Your task to perform on an android device: change notification settings in the gmail app Image 0: 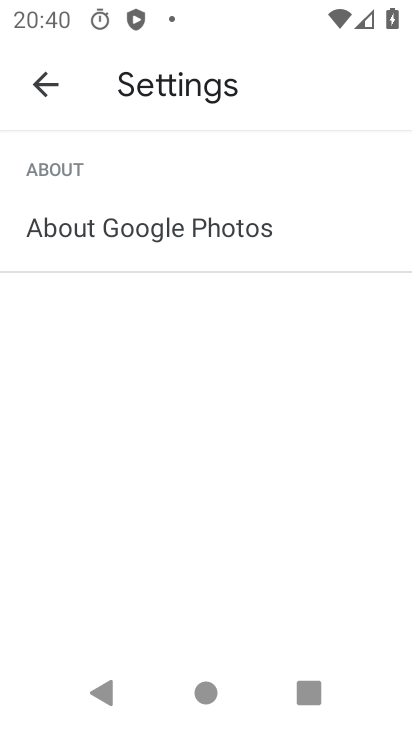
Step 0: press back button
Your task to perform on an android device: change notification settings in the gmail app Image 1: 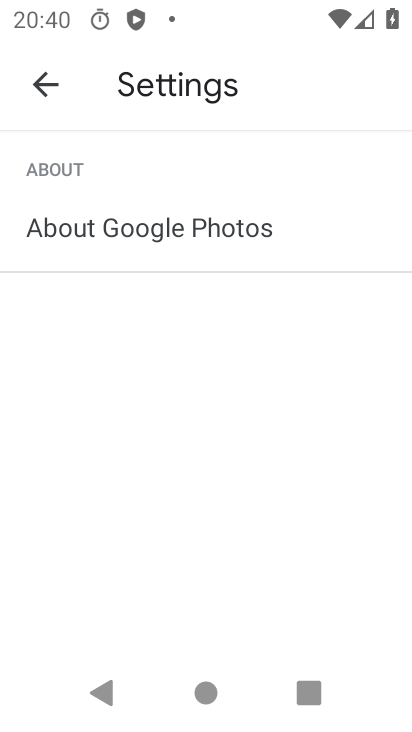
Step 1: press back button
Your task to perform on an android device: change notification settings in the gmail app Image 2: 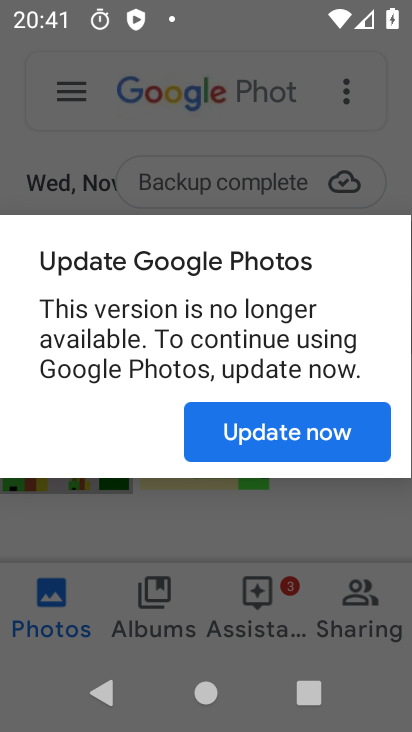
Step 2: press back button
Your task to perform on an android device: change notification settings in the gmail app Image 3: 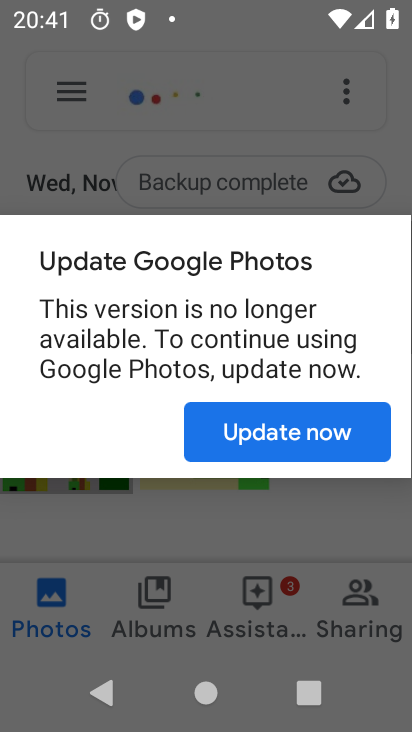
Step 3: press back button
Your task to perform on an android device: change notification settings in the gmail app Image 4: 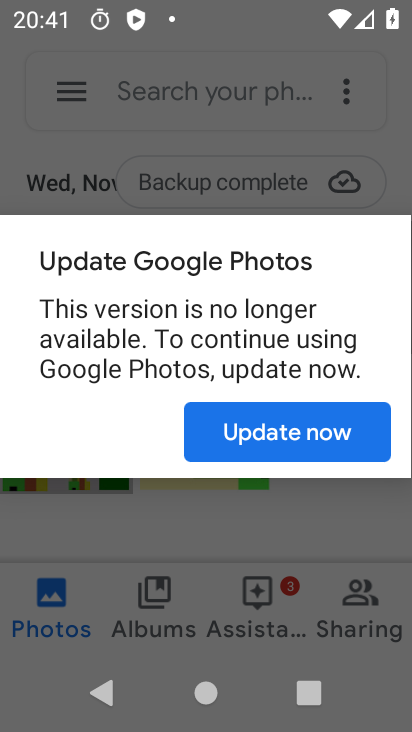
Step 4: press back button
Your task to perform on an android device: change notification settings in the gmail app Image 5: 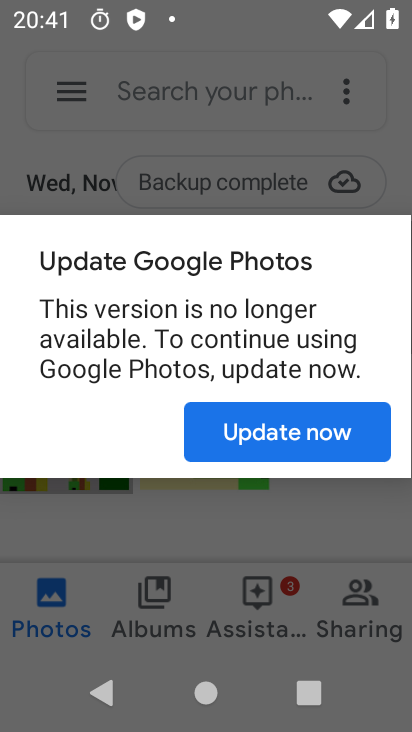
Step 5: press home button
Your task to perform on an android device: change notification settings in the gmail app Image 6: 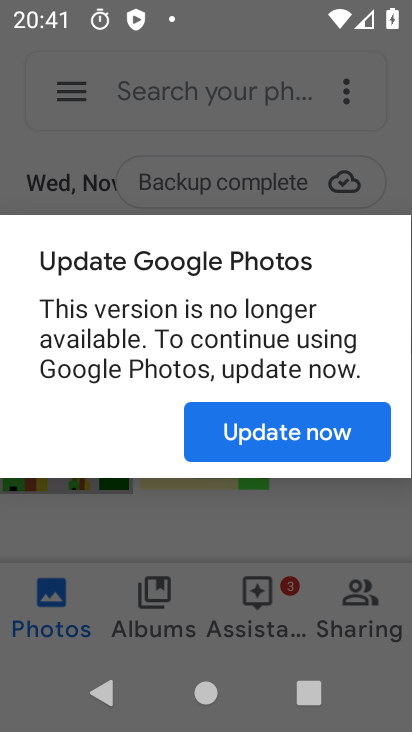
Step 6: press home button
Your task to perform on an android device: change notification settings in the gmail app Image 7: 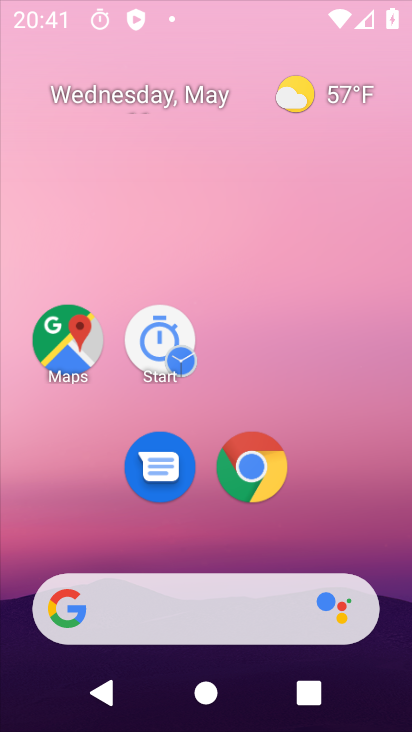
Step 7: press home button
Your task to perform on an android device: change notification settings in the gmail app Image 8: 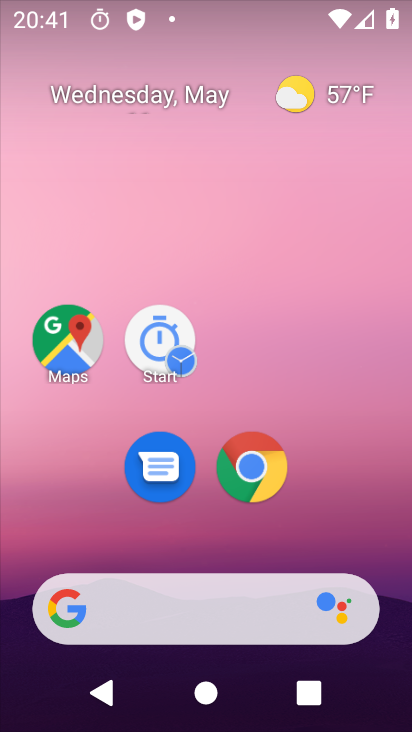
Step 8: drag from (248, 385) to (68, 1)
Your task to perform on an android device: change notification settings in the gmail app Image 9: 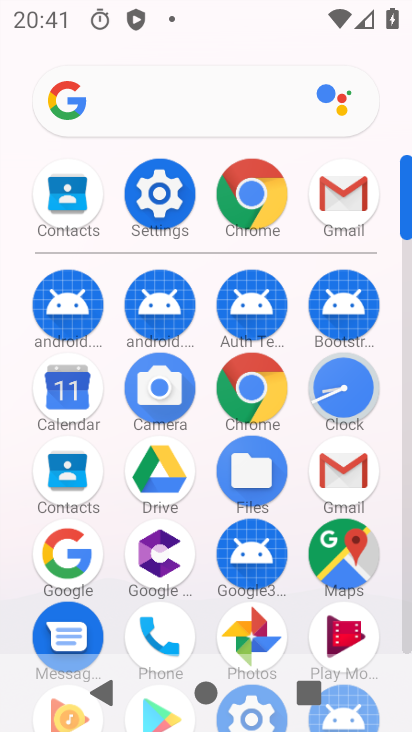
Step 9: click (336, 338)
Your task to perform on an android device: change notification settings in the gmail app Image 10: 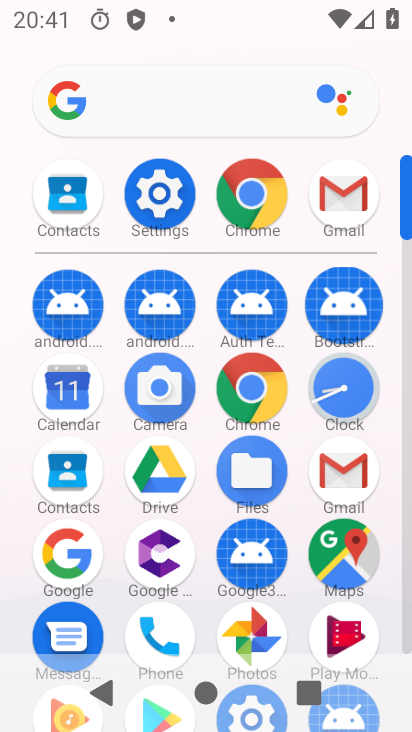
Step 10: click (348, 452)
Your task to perform on an android device: change notification settings in the gmail app Image 11: 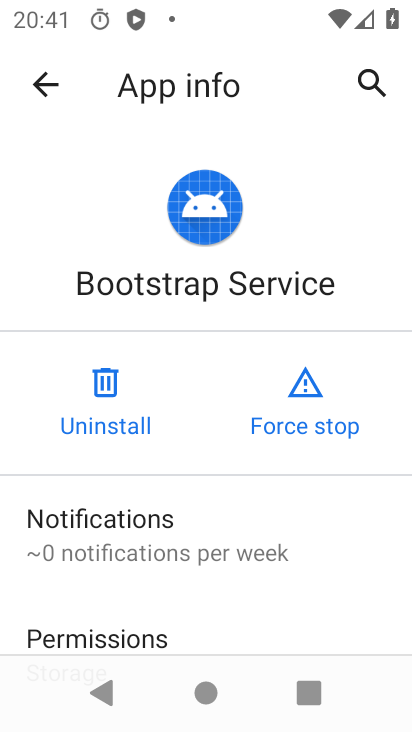
Step 11: click (47, 87)
Your task to perform on an android device: change notification settings in the gmail app Image 12: 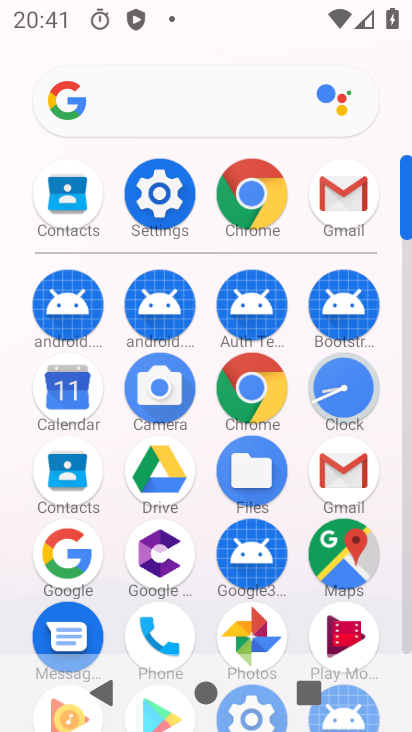
Step 12: click (345, 200)
Your task to perform on an android device: change notification settings in the gmail app Image 13: 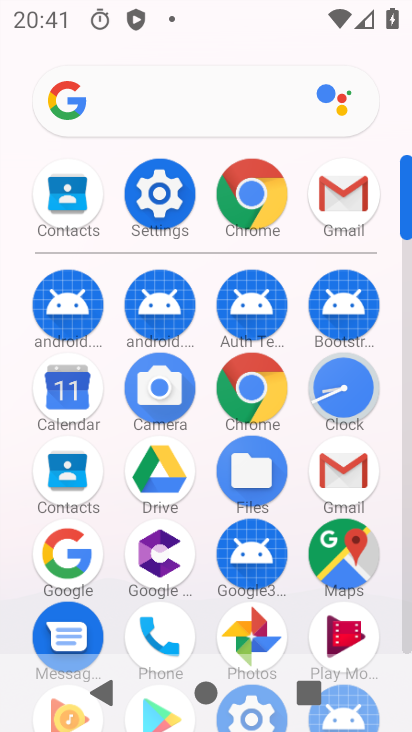
Step 13: click (345, 200)
Your task to perform on an android device: change notification settings in the gmail app Image 14: 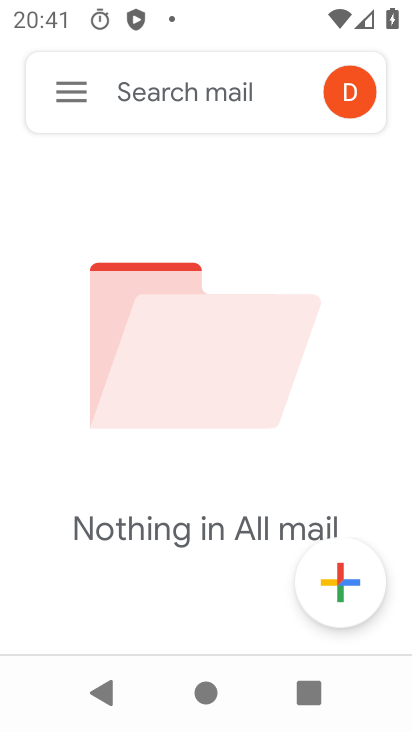
Step 14: click (346, 199)
Your task to perform on an android device: change notification settings in the gmail app Image 15: 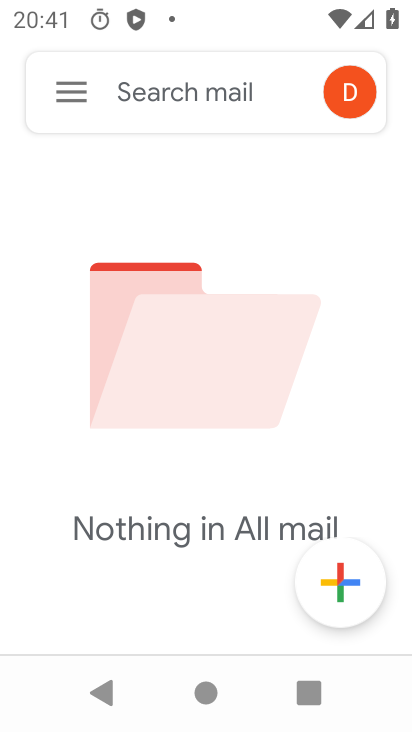
Step 15: click (79, 100)
Your task to perform on an android device: change notification settings in the gmail app Image 16: 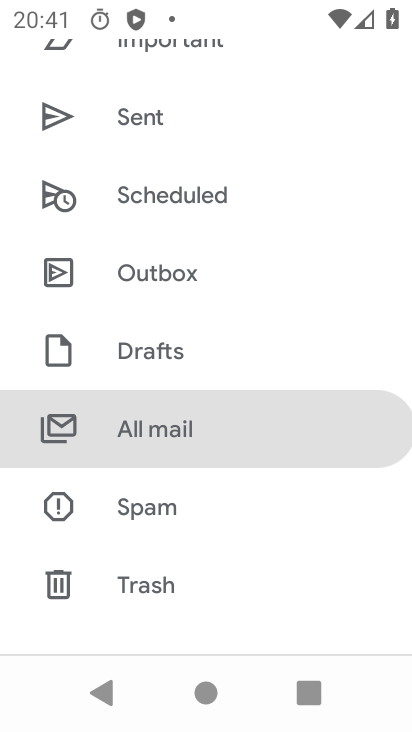
Step 16: click (77, 102)
Your task to perform on an android device: change notification settings in the gmail app Image 17: 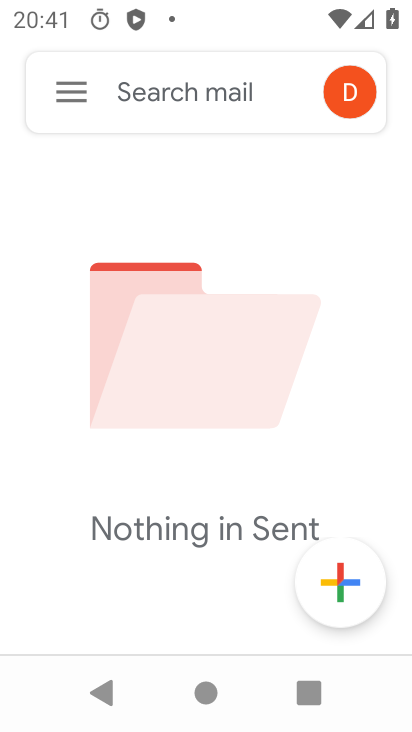
Step 17: click (79, 100)
Your task to perform on an android device: change notification settings in the gmail app Image 18: 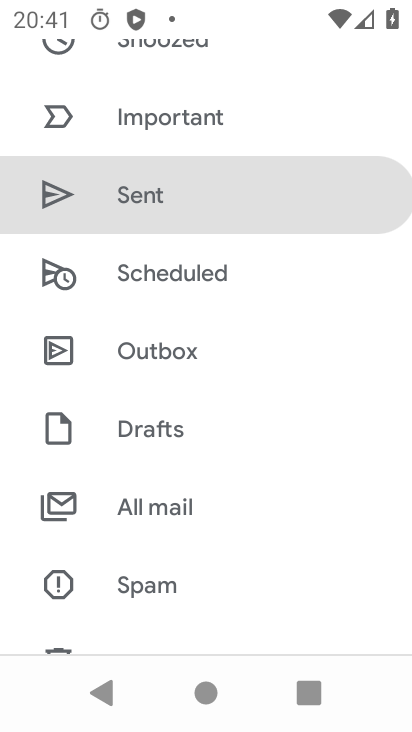
Step 18: click (64, 79)
Your task to perform on an android device: change notification settings in the gmail app Image 19: 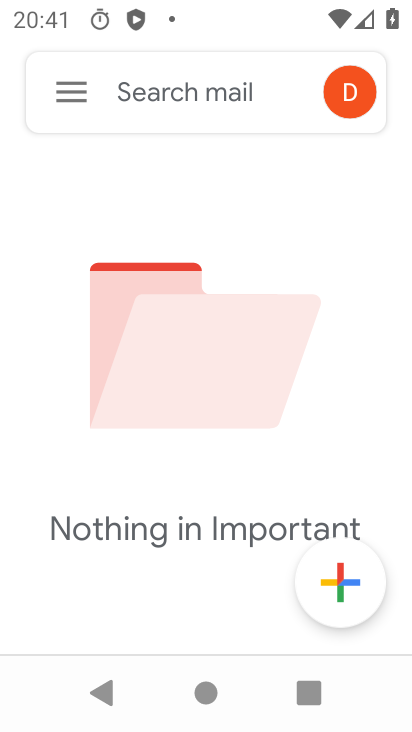
Step 19: click (70, 89)
Your task to perform on an android device: change notification settings in the gmail app Image 20: 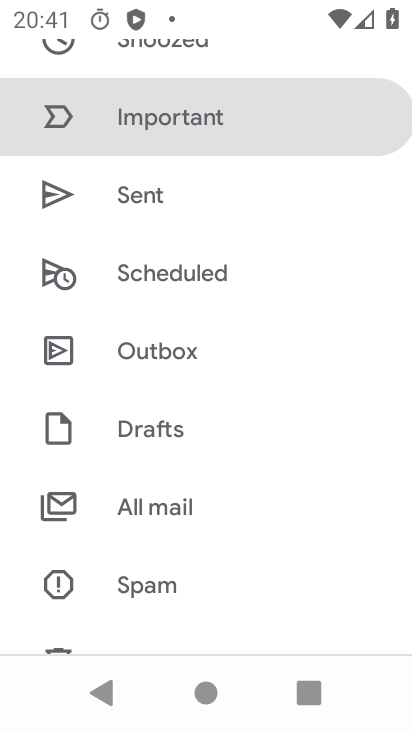
Step 20: drag from (165, 573) to (178, 123)
Your task to perform on an android device: change notification settings in the gmail app Image 21: 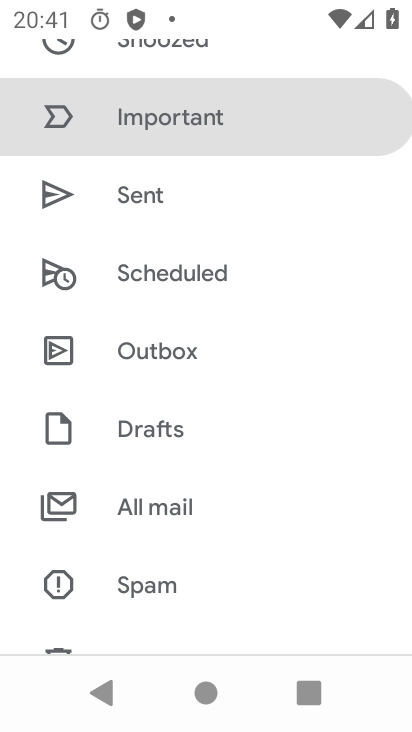
Step 21: drag from (268, 524) to (128, 129)
Your task to perform on an android device: change notification settings in the gmail app Image 22: 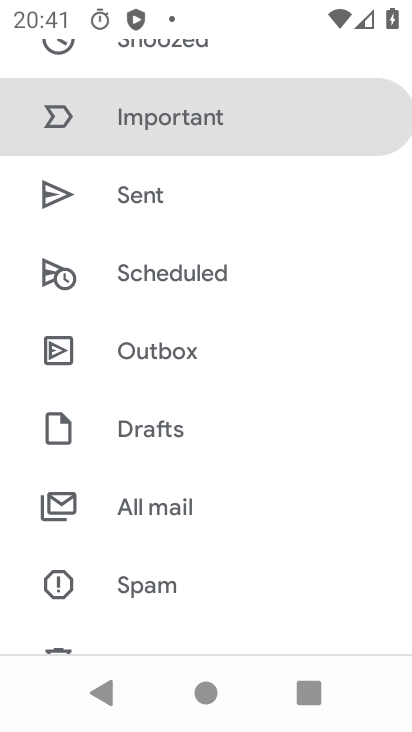
Step 22: drag from (209, 88) to (166, 114)
Your task to perform on an android device: change notification settings in the gmail app Image 23: 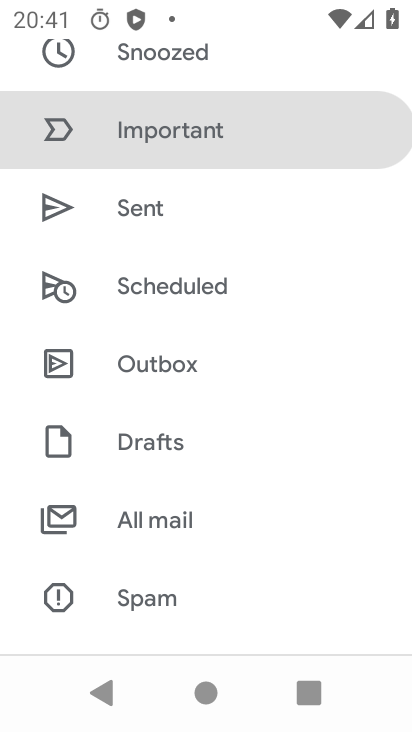
Step 23: click (249, 108)
Your task to perform on an android device: change notification settings in the gmail app Image 24: 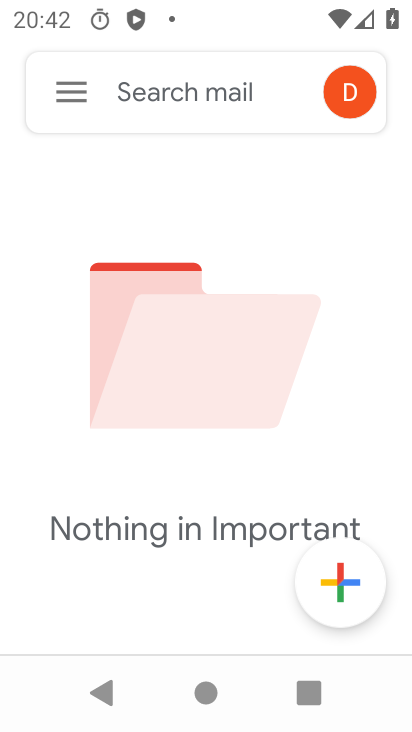
Step 24: drag from (182, 416) to (129, 3)
Your task to perform on an android device: change notification settings in the gmail app Image 25: 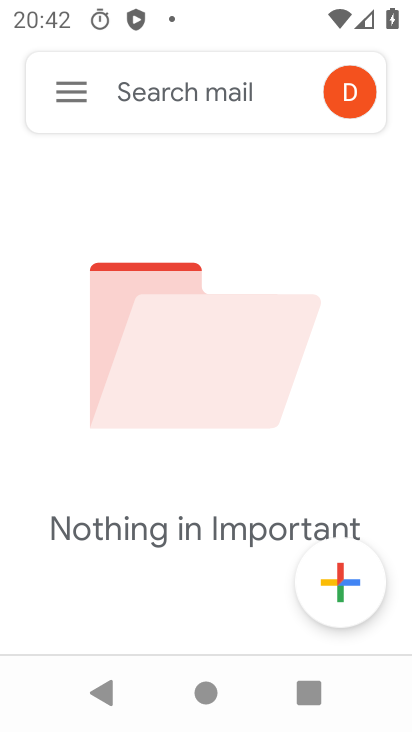
Step 25: click (119, 95)
Your task to perform on an android device: change notification settings in the gmail app Image 26: 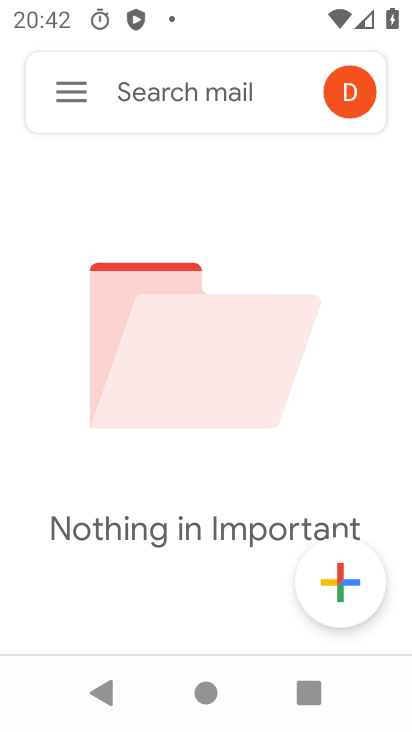
Step 26: drag from (173, 538) to (47, 25)
Your task to perform on an android device: change notification settings in the gmail app Image 27: 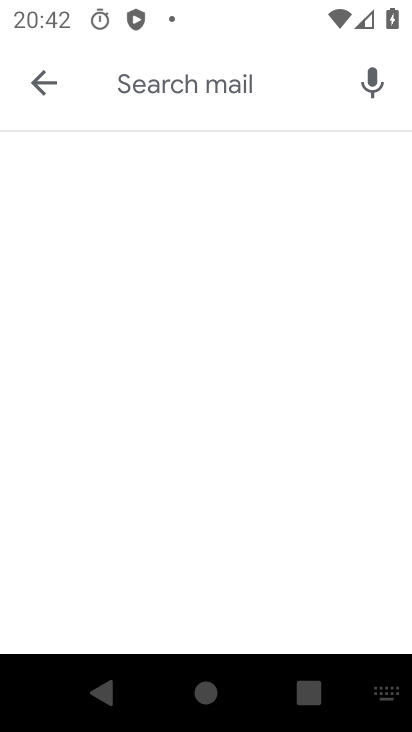
Step 27: drag from (138, 533) to (51, 167)
Your task to perform on an android device: change notification settings in the gmail app Image 28: 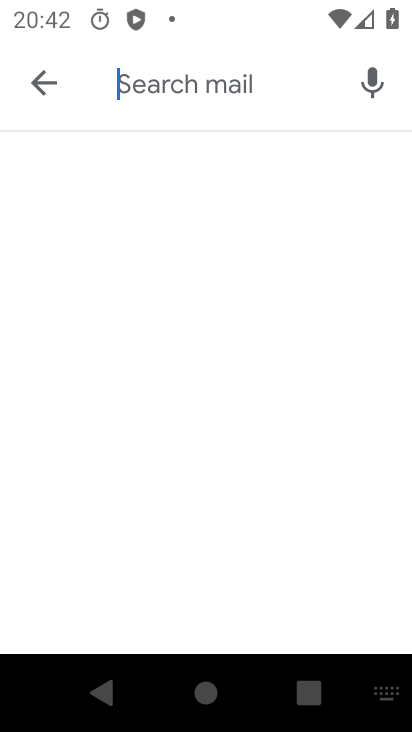
Step 28: drag from (141, 481) to (152, 77)
Your task to perform on an android device: change notification settings in the gmail app Image 29: 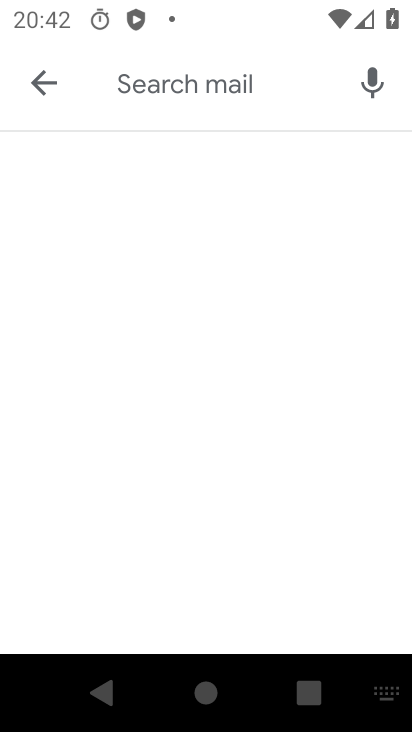
Step 29: drag from (239, 418) to (192, 0)
Your task to perform on an android device: change notification settings in the gmail app Image 30: 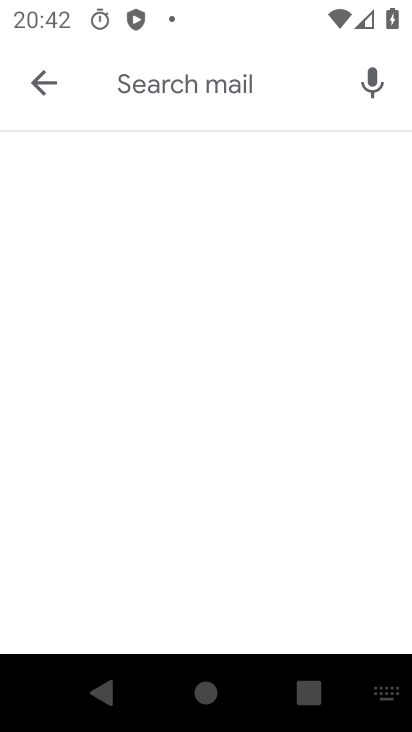
Step 30: click (57, 85)
Your task to perform on an android device: change notification settings in the gmail app Image 31: 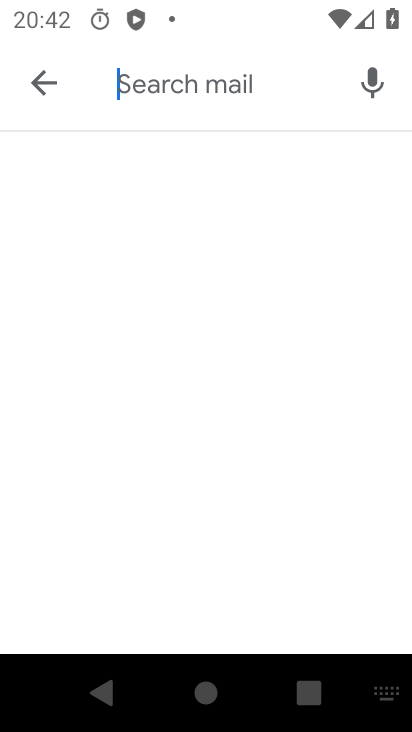
Step 31: click (65, 86)
Your task to perform on an android device: change notification settings in the gmail app Image 32: 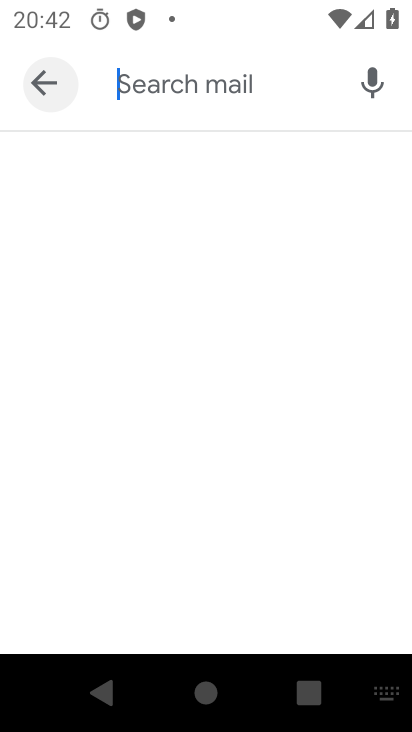
Step 32: click (66, 85)
Your task to perform on an android device: change notification settings in the gmail app Image 33: 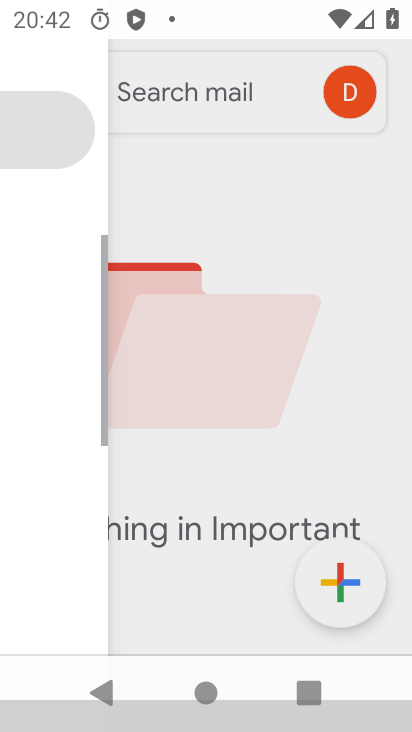
Step 33: click (60, 61)
Your task to perform on an android device: change notification settings in the gmail app Image 34: 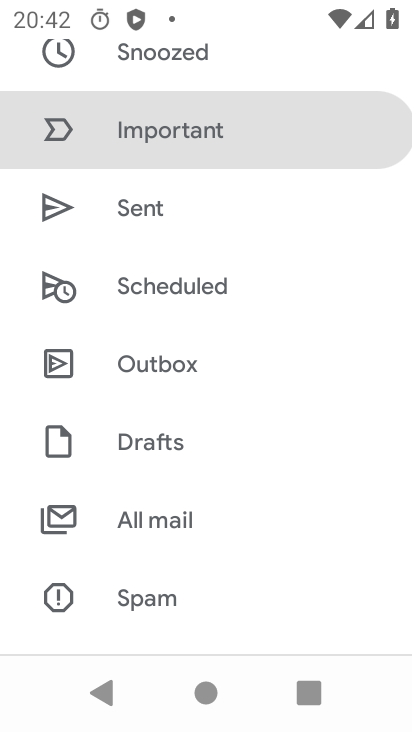
Step 34: click (42, 74)
Your task to perform on an android device: change notification settings in the gmail app Image 35: 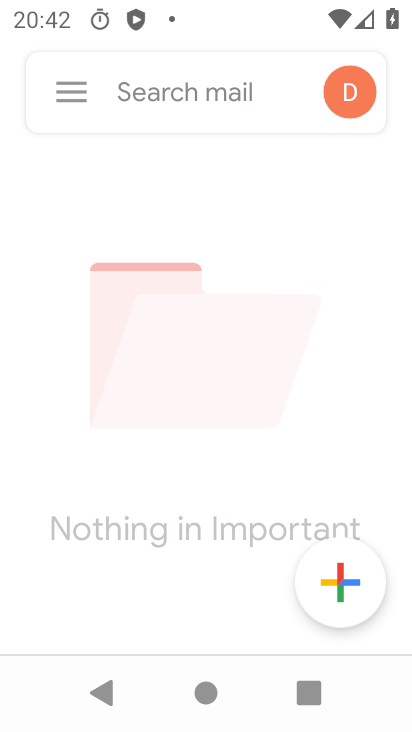
Step 35: drag from (159, 491) to (127, 19)
Your task to perform on an android device: change notification settings in the gmail app Image 36: 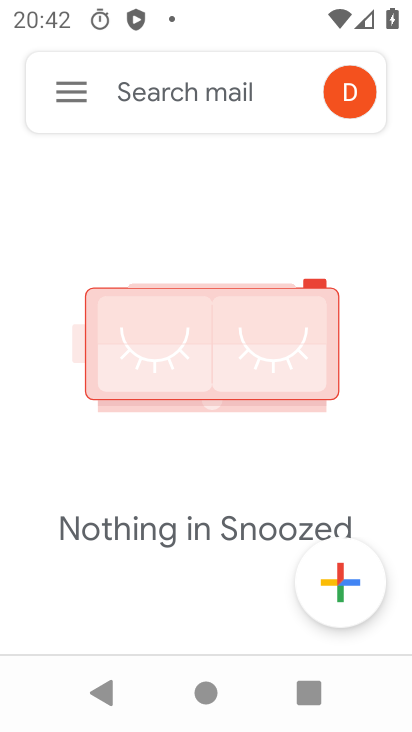
Step 36: click (49, 92)
Your task to perform on an android device: change notification settings in the gmail app Image 37: 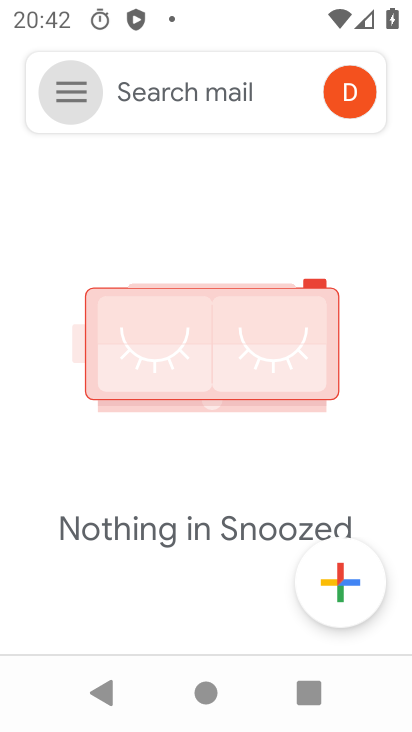
Step 37: click (53, 95)
Your task to perform on an android device: change notification settings in the gmail app Image 38: 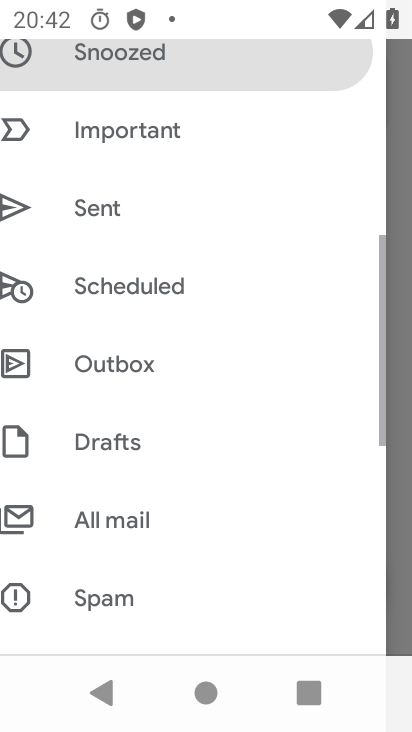
Step 38: click (53, 95)
Your task to perform on an android device: change notification settings in the gmail app Image 39: 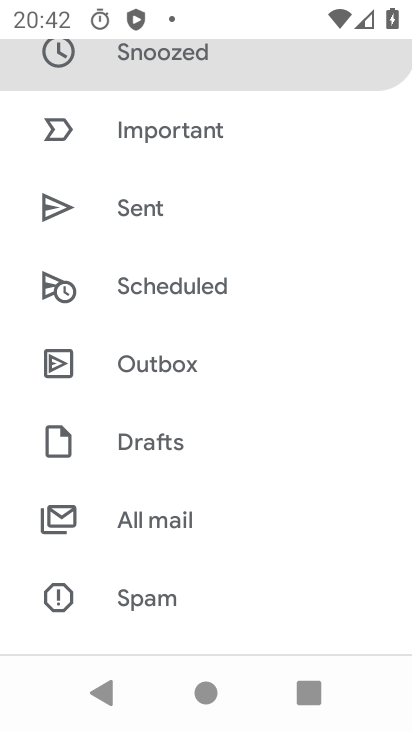
Step 39: drag from (200, 530) to (147, 239)
Your task to perform on an android device: change notification settings in the gmail app Image 40: 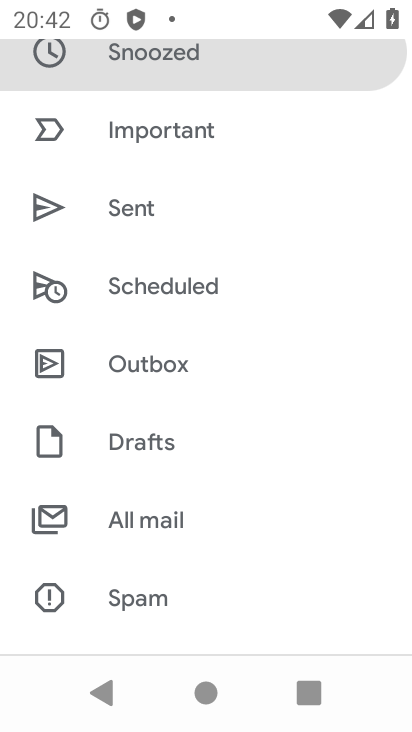
Step 40: drag from (152, 445) to (124, 120)
Your task to perform on an android device: change notification settings in the gmail app Image 41: 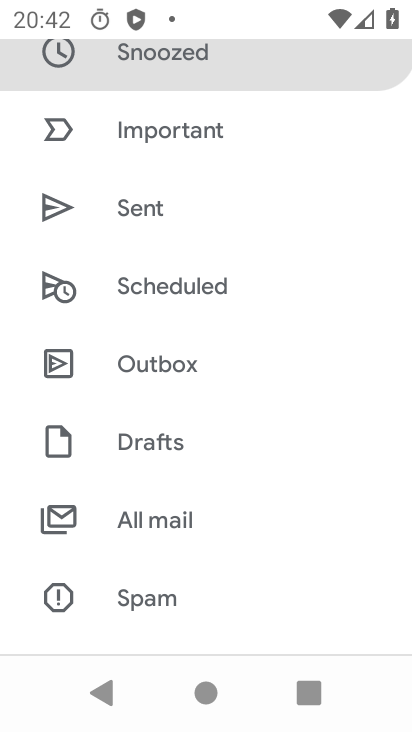
Step 41: drag from (149, 449) to (161, 83)
Your task to perform on an android device: change notification settings in the gmail app Image 42: 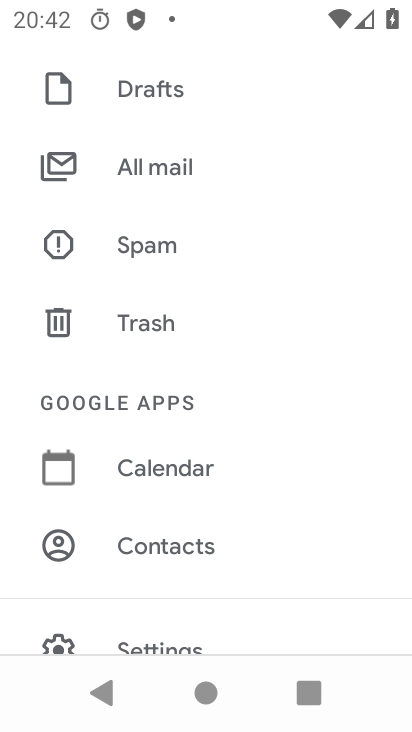
Step 42: drag from (189, 452) to (208, 28)
Your task to perform on an android device: change notification settings in the gmail app Image 43: 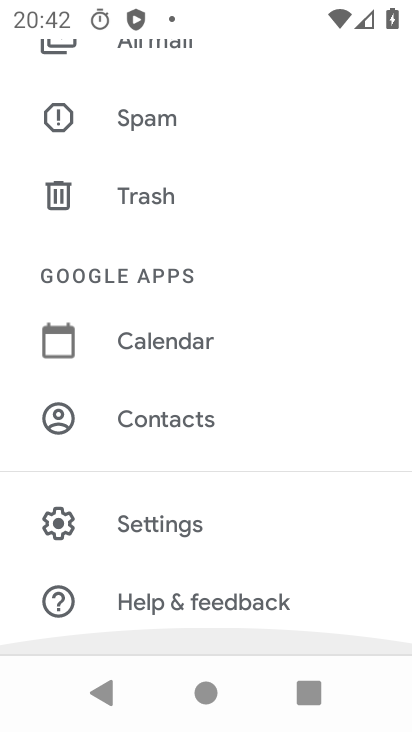
Step 43: drag from (245, 446) to (217, 112)
Your task to perform on an android device: change notification settings in the gmail app Image 44: 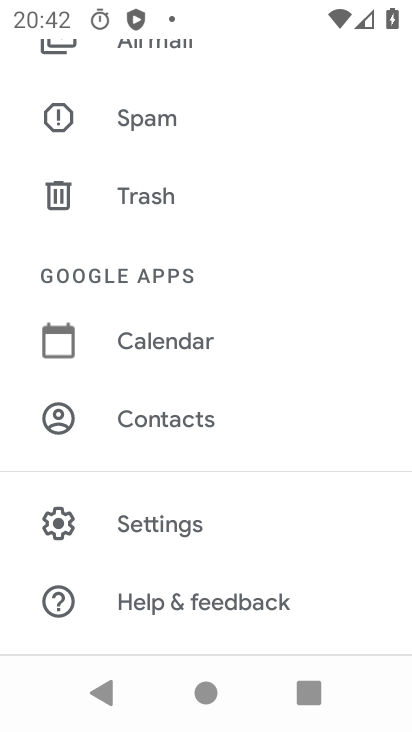
Step 44: drag from (229, 495) to (212, 37)
Your task to perform on an android device: change notification settings in the gmail app Image 45: 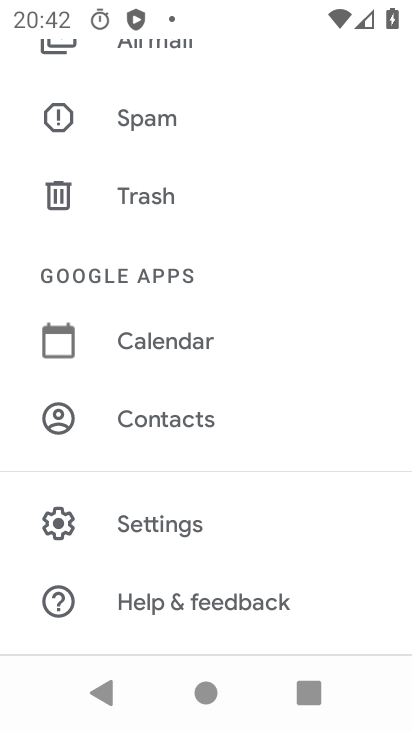
Step 45: click (168, 514)
Your task to perform on an android device: change notification settings in the gmail app Image 46: 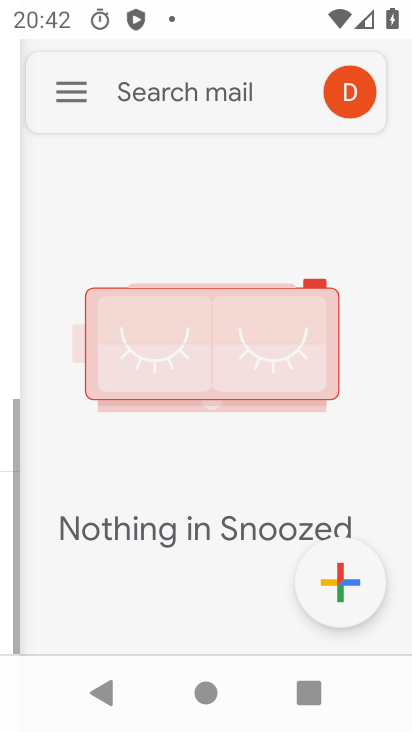
Step 46: click (159, 516)
Your task to perform on an android device: change notification settings in the gmail app Image 47: 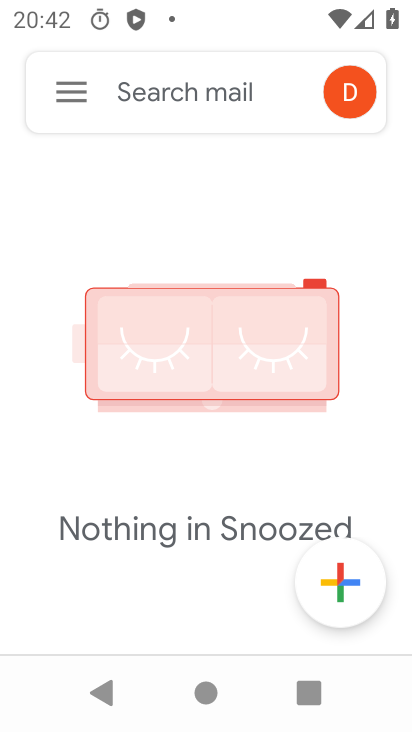
Step 47: click (159, 516)
Your task to perform on an android device: change notification settings in the gmail app Image 48: 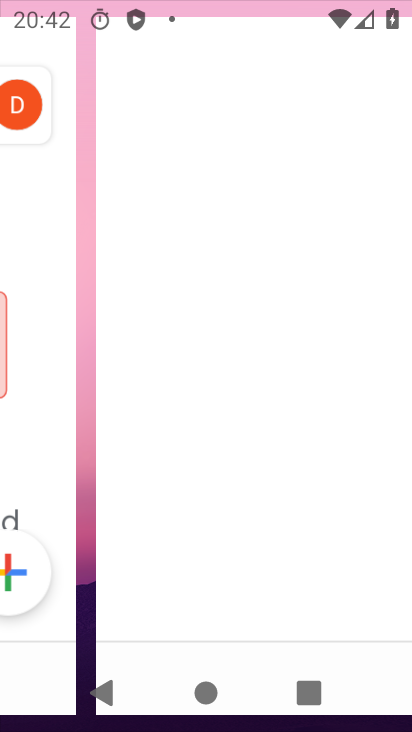
Step 48: click (159, 516)
Your task to perform on an android device: change notification settings in the gmail app Image 49: 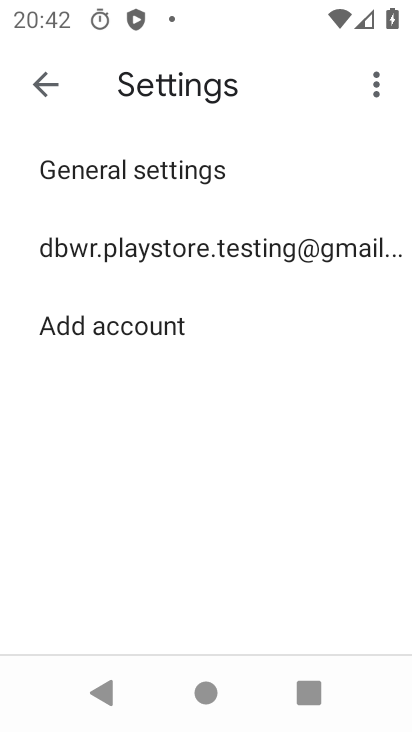
Step 49: click (165, 246)
Your task to perform on an android device: change notification settings in the gmail app Image 50: 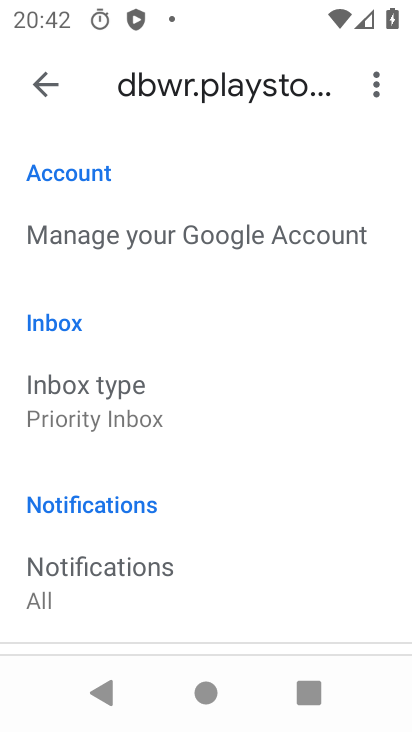
Step 50: click (91, 560)
Your task to perform on an android device: change notification settings in the gmail app Image 51: 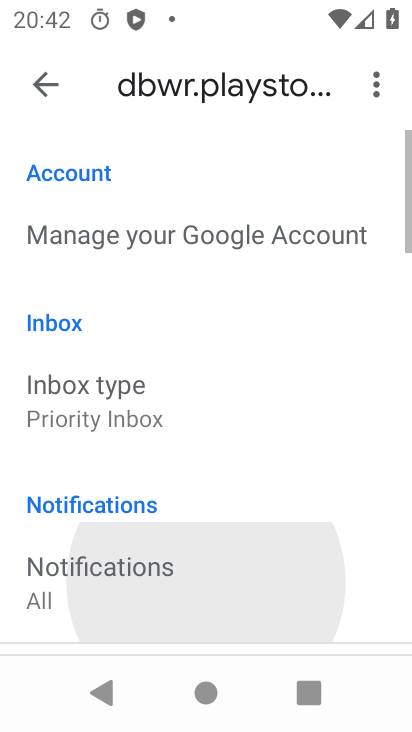
Step 51: click (94, 558)
Your task to perform on an android device: change notification settings in the gmail app Image 52: 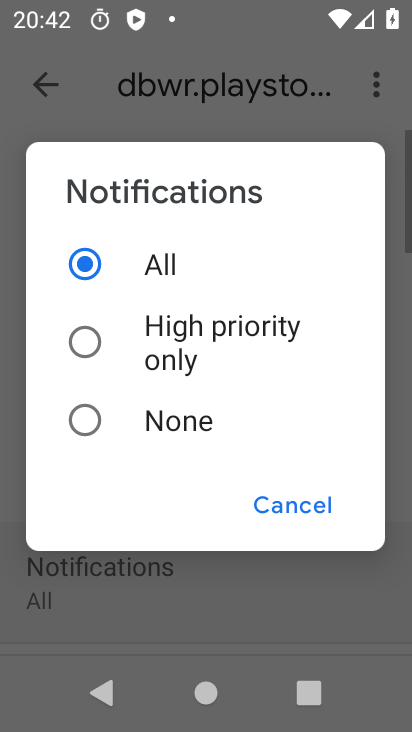
Step 52: click (95, 555)
Your task to perform on an android device: change notification settings in the gmail app Image 53: 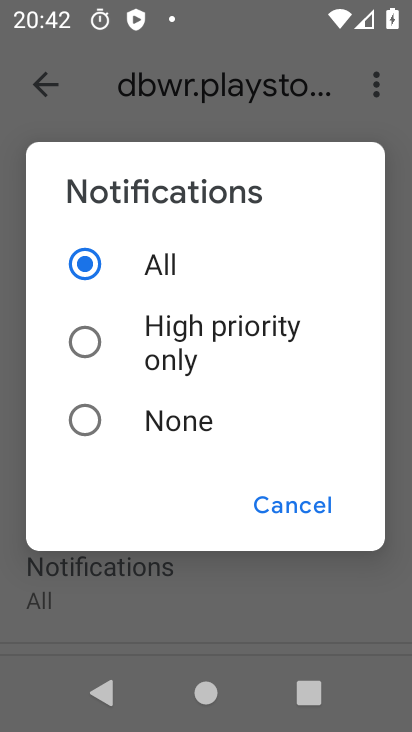
Step 53: click (81, 338)
Your task to perform on an android device: change notification settings in the gmail app Image 54: 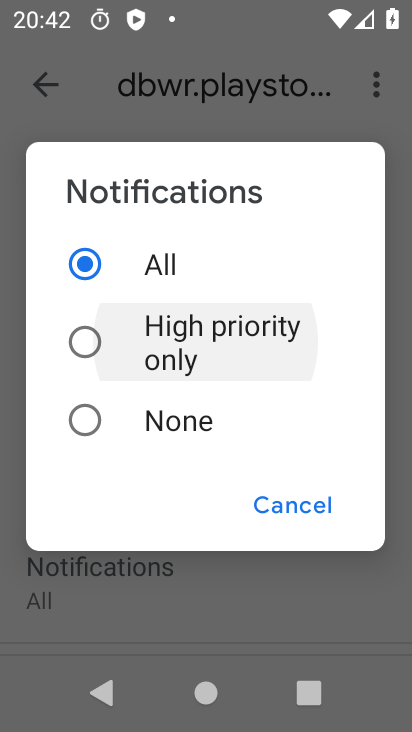
Step 54: click (81, 330)
Your task to perform on an android device: change notification settings in the gmail app Image 55: 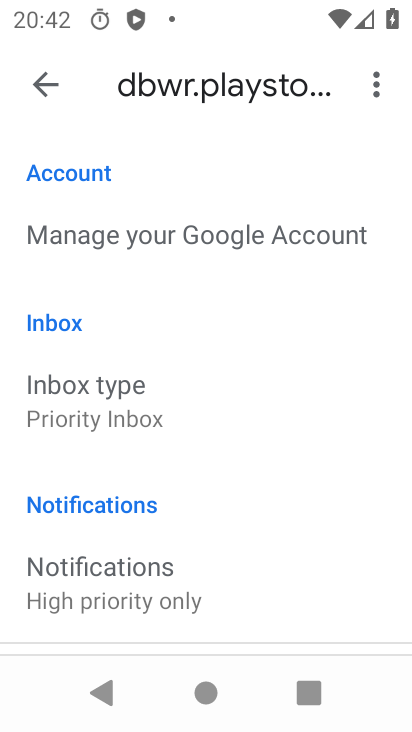
Step 55: task complete